Your task to perform on an android device: Open the web browser Image 0: 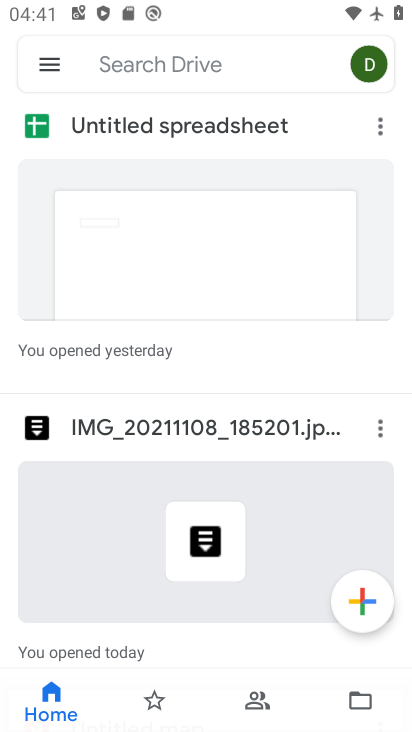
Step 0: press back button
Your task to perform on an android device: Open the web browser Image 1: 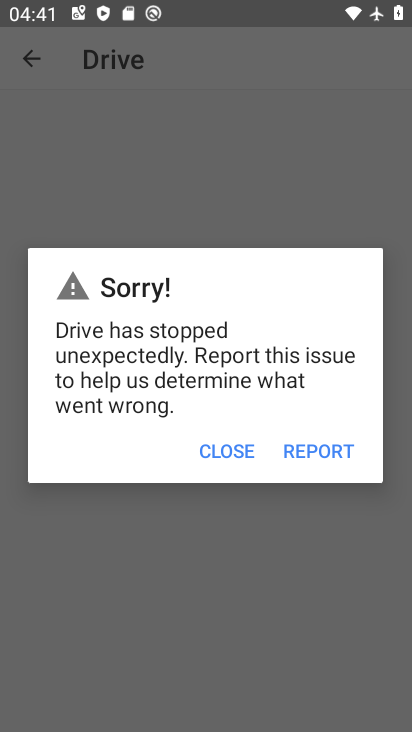
Step 1: press home button
Your task to perform on an android device: Open the web browser Image 2: 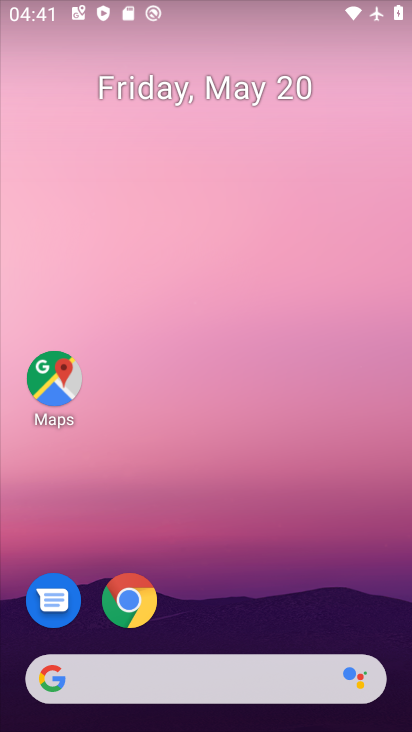
Step 2: drag from (291, 550) to (266, 11)
Your task to perform on an android device: Open the web browser Image 3: 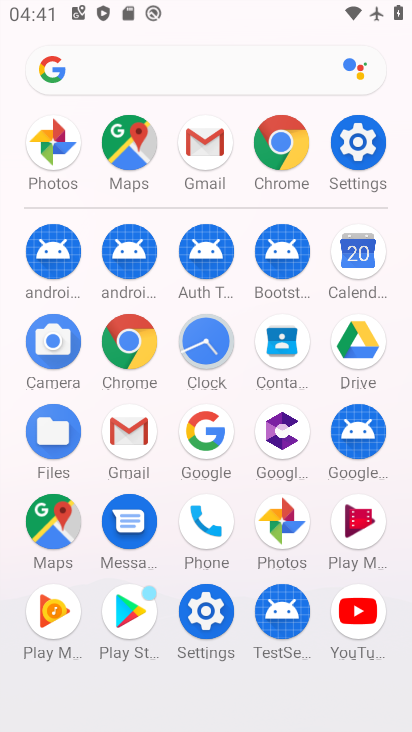
Step 3: drag from (14, 555) to (35, 223)
Your task to perform on an android device: Open the web browser Image 4: 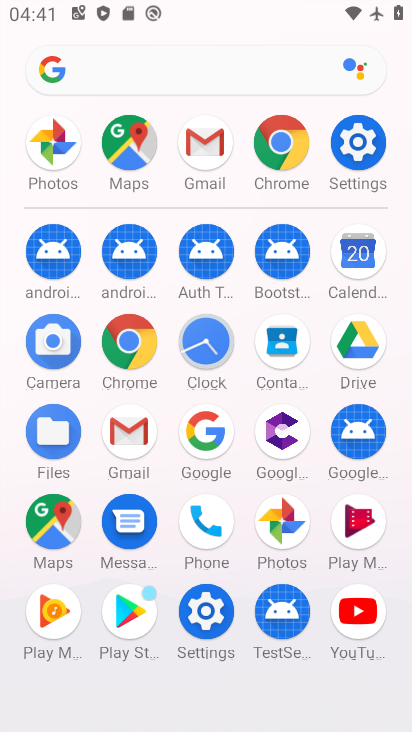
Step 4: click (134, 332)
Your task to perform on an android device: Open the web browser Image 5: 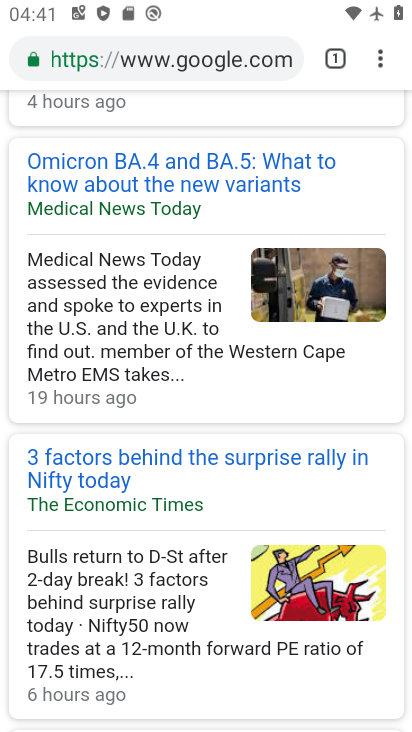
Step 5: task complete